Your task to perform on an android device: toggle show notifications on the lock screen Image 0: 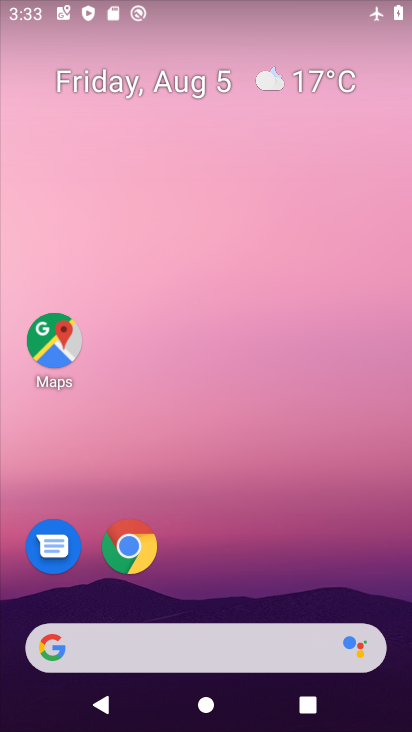
Step 0: press home button
Your task to perform on an android device: toggle show notifications on the lock screen Image 1: 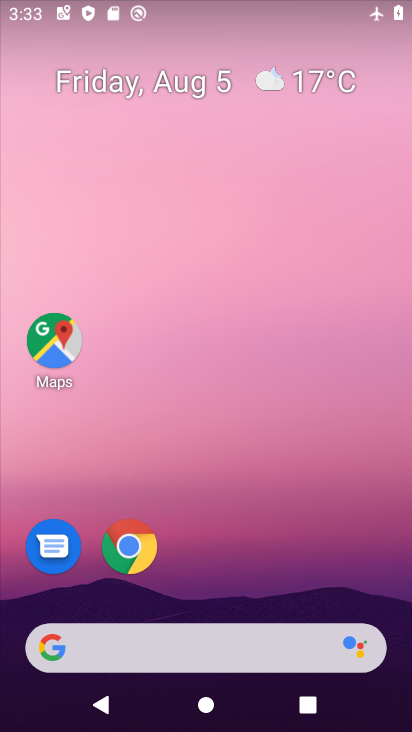
Step 1: drag from (310, 507) to (314, 207)
Your task to perform on an android device: toggle show notifications on the lock screen Image 2: 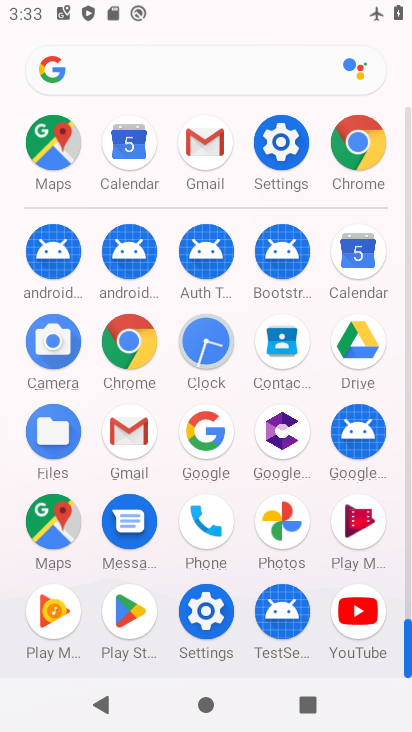
Step 2: click (286, 150)
Your task to perform on an android device: toggle show notifications on the lock screen Image 3: 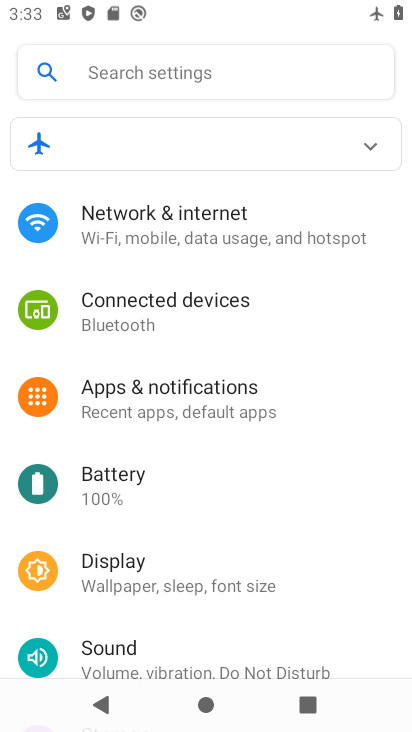
Step 3: drag from (336, 480) to (345, 396)
Your task to perform on an android device: toggle show notifications on the lock screen Image 4: 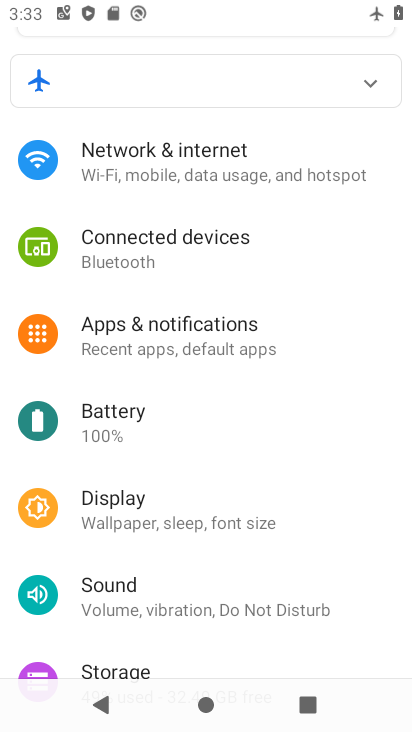
Step 4: drag from (348, 514) to (349, 392)
Your task to perform on an android device: toggle show notifications on the lock screen Image 5: 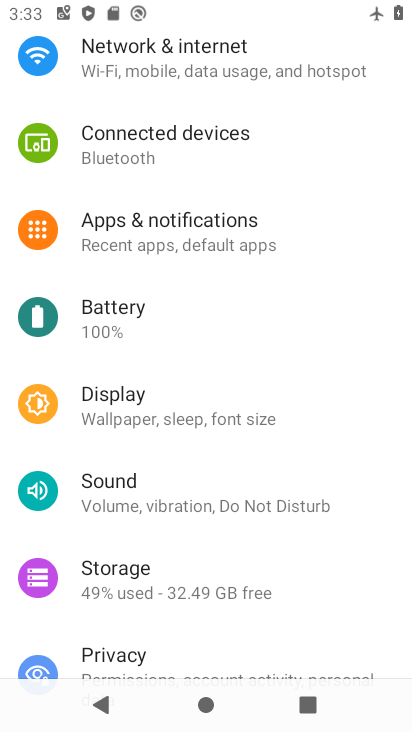
Step 5: drag from (345, 486) to (344, 307)
Your task to perform on an android device: toggle show notifications on the lock screen Image 6: 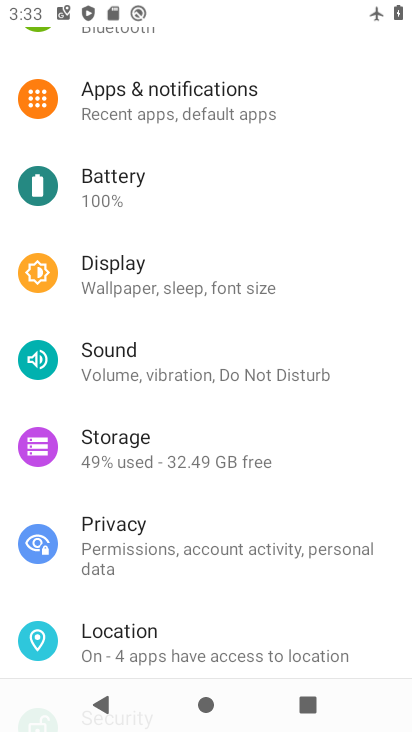
Step 6: click (291, 95)
Your task to perform on an android device: toggle show notifications on the lock screen Image 7: 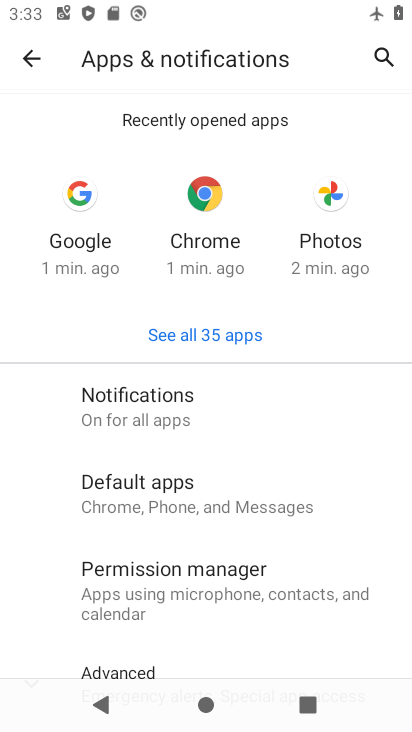
Step 7: click (213, 406)
Your task to perform on an android device: toggle show notifications on the lock screen Image 8: 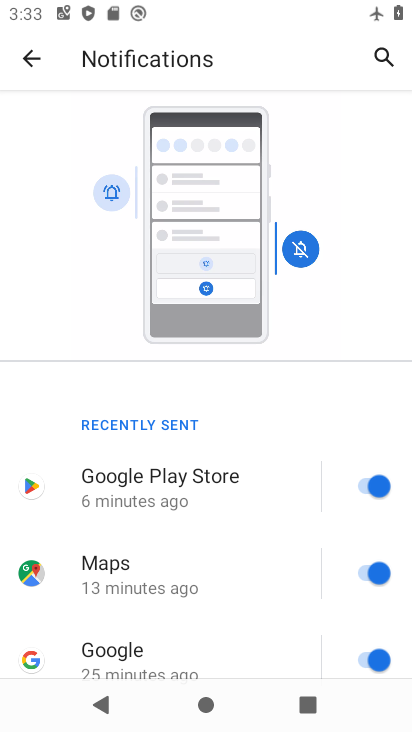
Step 8: drag from (222, 613) to (226, 426)
Your task to perform on an android device: toggle show notifications on the lock screen Image 9: 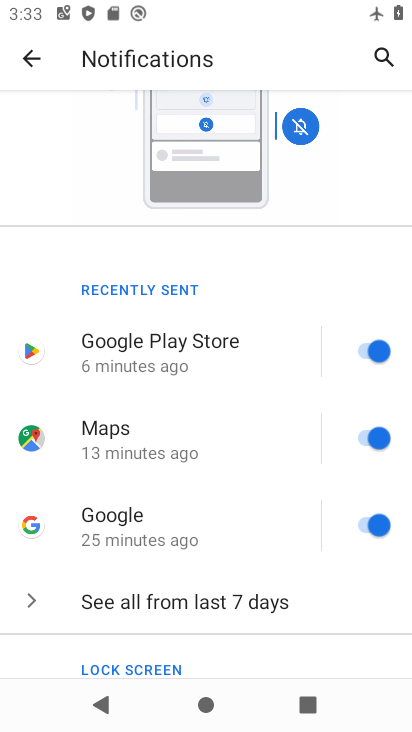
Step 9: drag from (267, 515) to (271, 333)
Your task to perform on an android device: toggle show notifications on the lock screen Image 10: 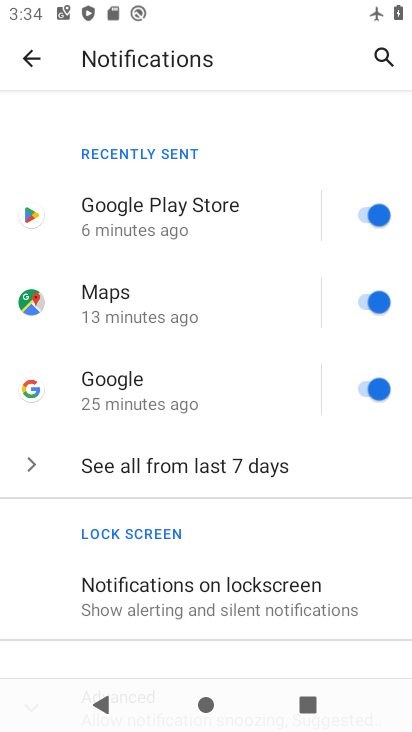
Step 10: click (262, 589)
Your task to perform on an android device: toggle show notifications on the lock screen Image 11: 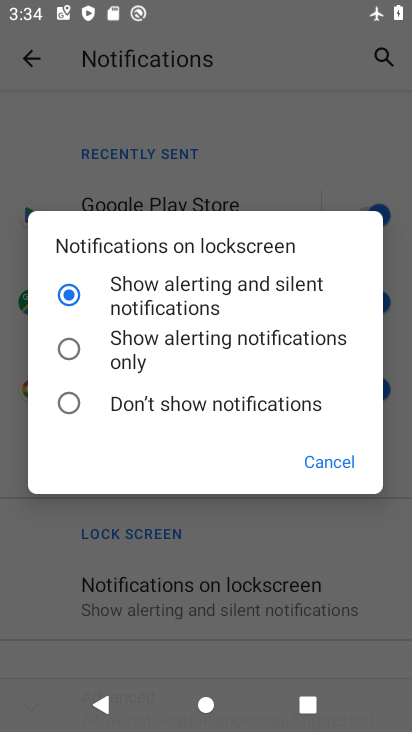
Step 11: click (152, 333)
Your task to perform on an android device: toggle show notifications on the lock screen Image 12: 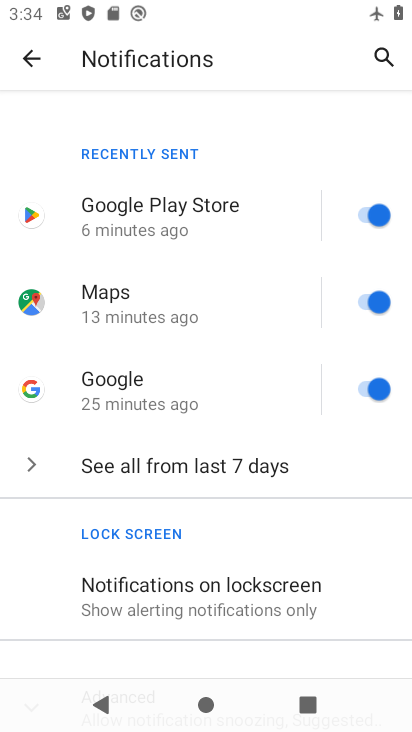
Step 12: task complete